Your task to perform on an android device: uninstall "eBay: The shopping marketplace" Image 0: 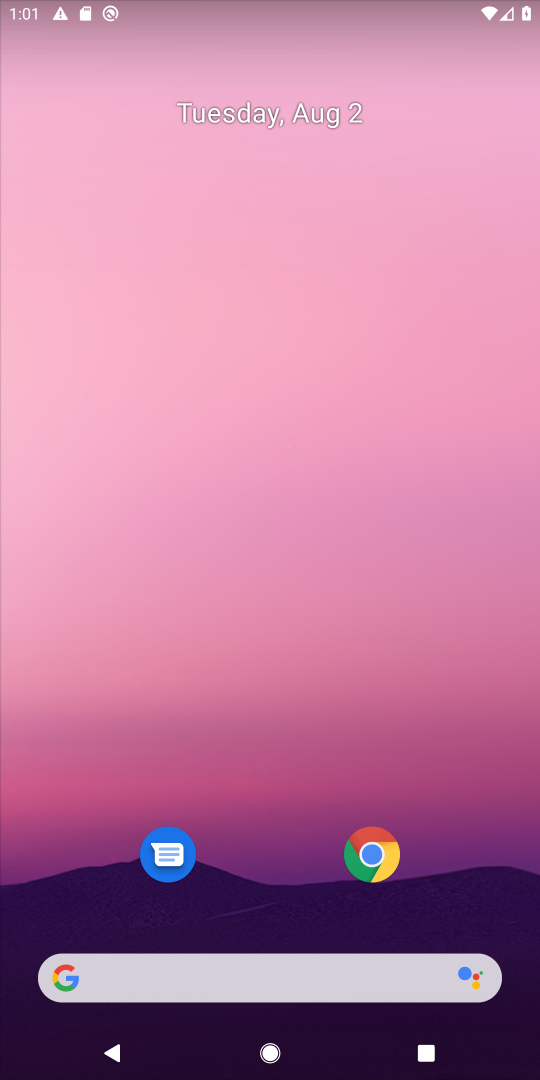
Step 0: drag from (304, 1057) to (304, 138)
Your task to perform on an android device: uninstall "eBay: The shopping marketplace" Image 1: 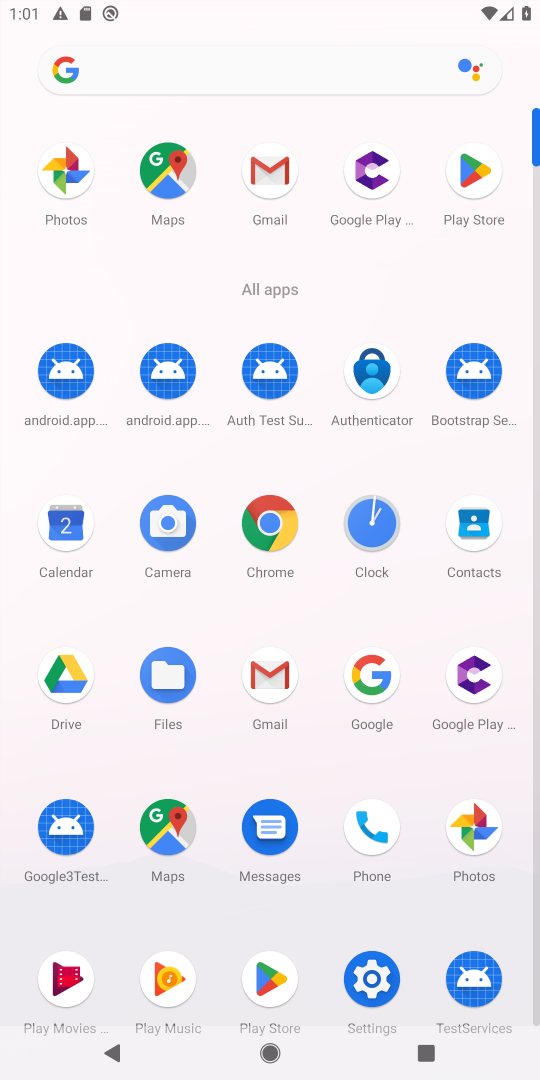
Step 1: click (269, 976)
Your task to perform on an android device: uninstall "eBay: The shopping marketplace" Image 2: 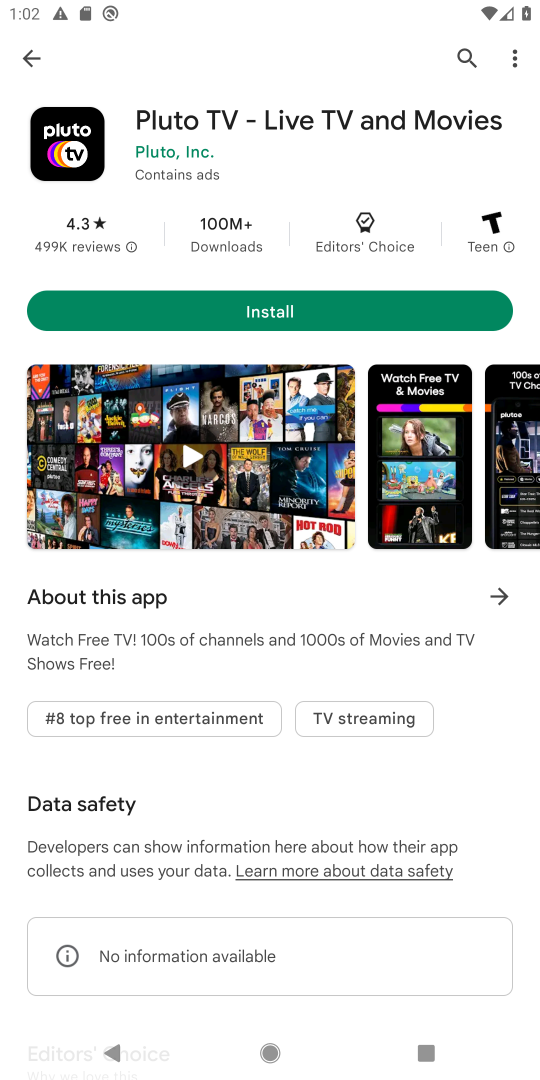
Step 2: click (459, 48)
Your task to perform on an android device: uninstall "eBay: The shopping marketplace" Image 3: 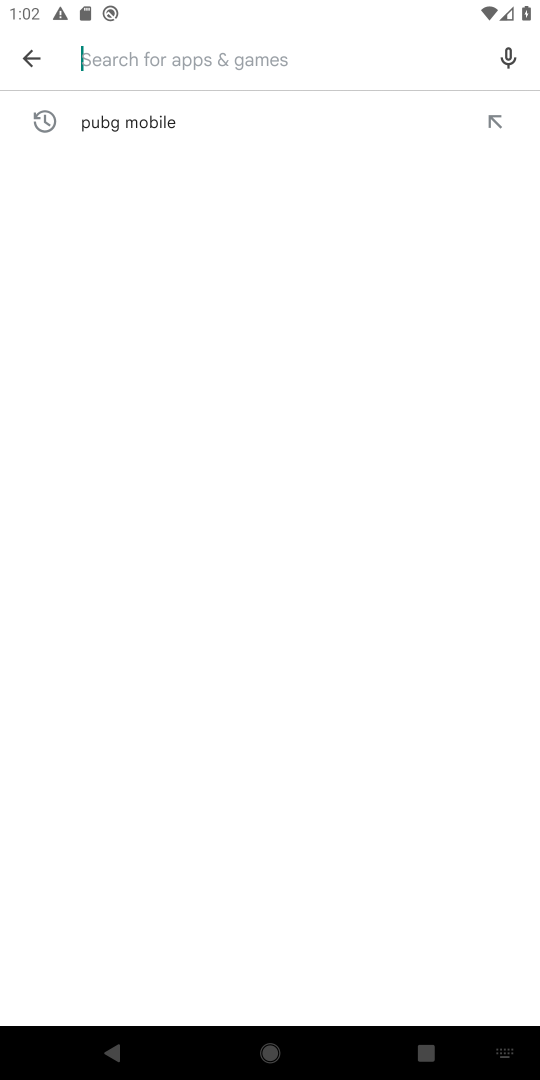
Step 3: type "eBay: The shopping marketplace"
Your task to perform on an android device: uninstall "eBay: The shopping marketplace" Image 4: 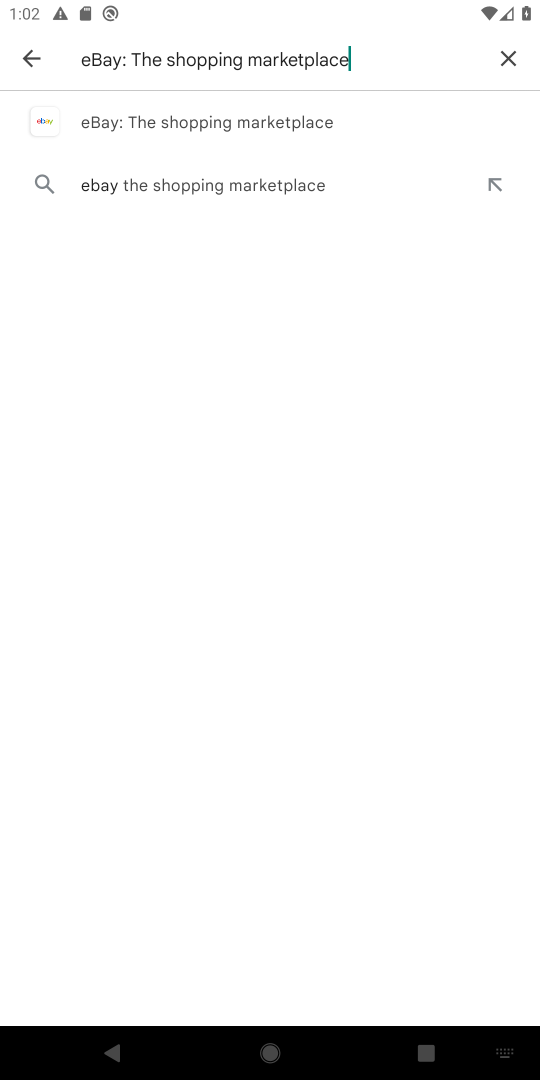
Step 4: click (315, 115)
Your task to perform on an android device: uninstall "eBay: The shopping marketplace" Image 5: 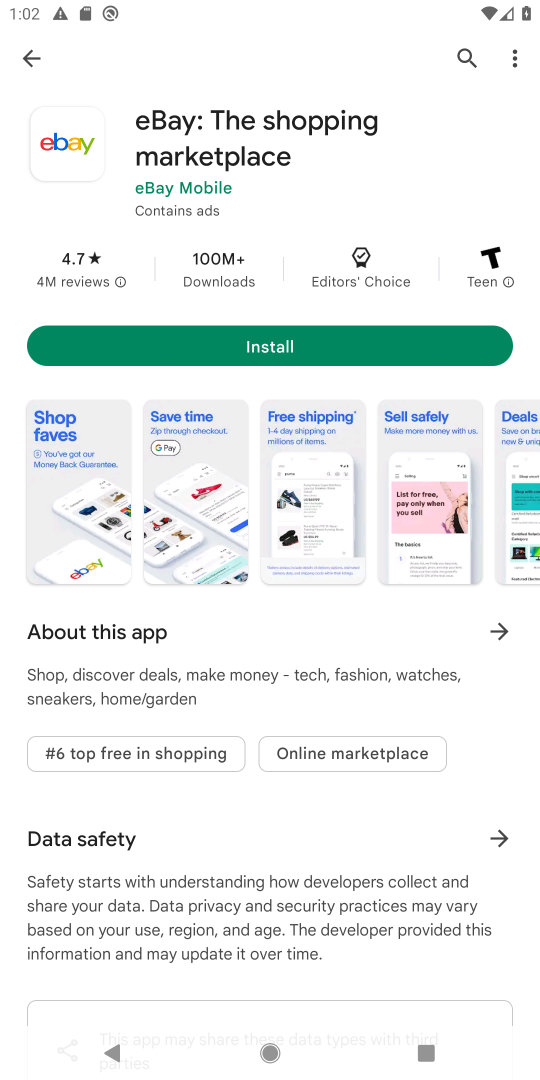
Step 5: task complete